Your task to perform on an android device: Open the calendar and show me this week's events? Image 0: 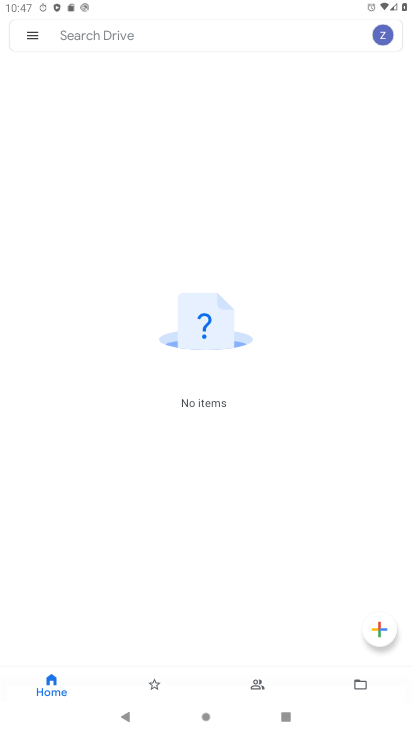
Step 0: press back button
Your task to perform on an android device: Open the calendar and show me this week's events? Image 1: 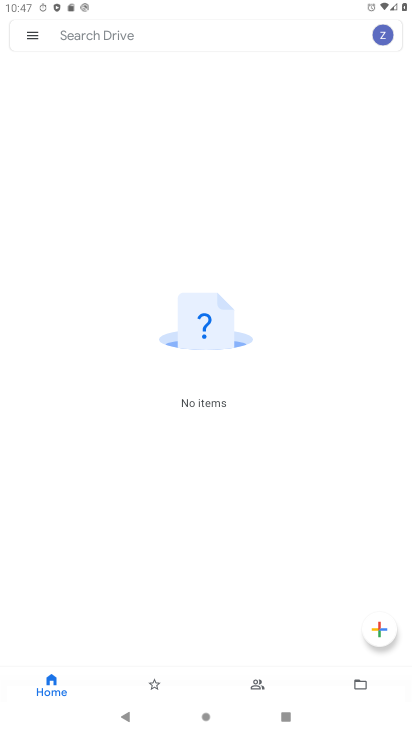
Step 1: press back button
Your task to perform on an android device: Open the calendar and show me this week's events? Image 2: 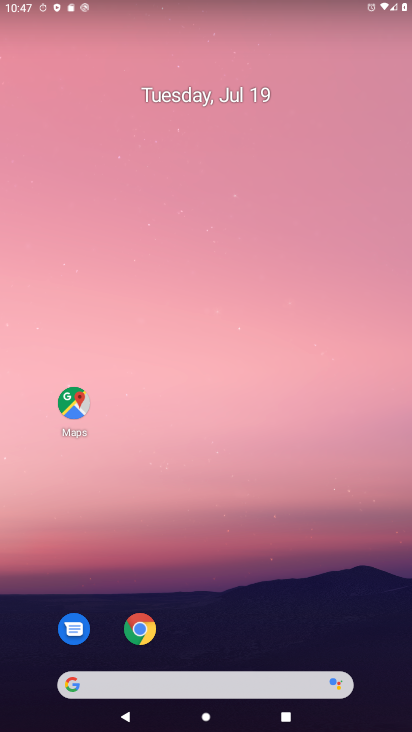
Step 2: drag from (270, 613) to (217, 101)
Your task to perform on an android device: Open the calendar and show me this week's events? Image 3: 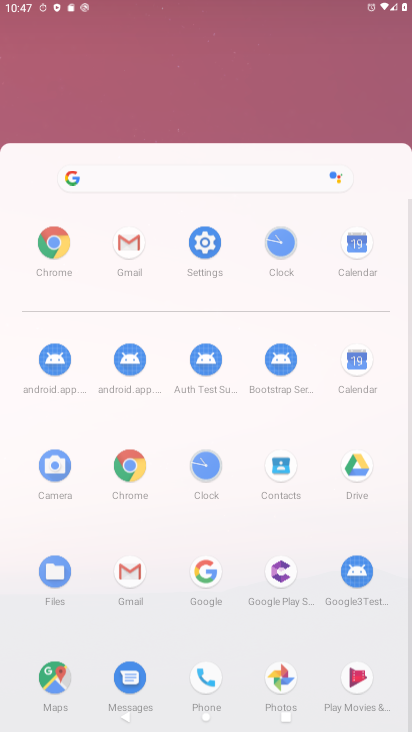
Step 3: drag from (260, 494) to (181, 59)
Your task to perform on an android device: Open the calendar and show me this week's events? Image 4: 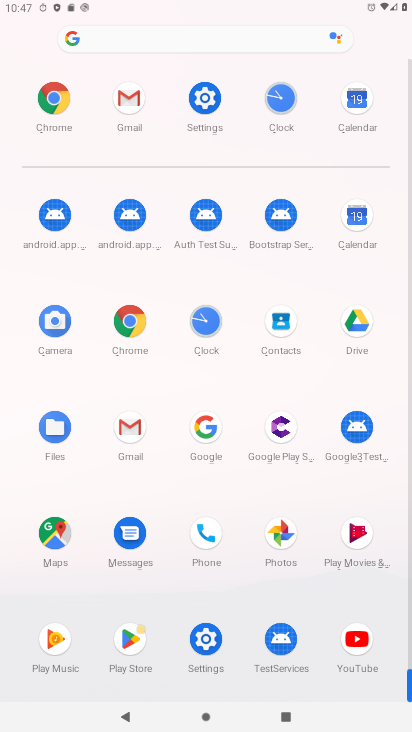
Step 4: click (356, 228)
Your task to perform on an android device: Open the calendar and show me this week's events? Image 5: 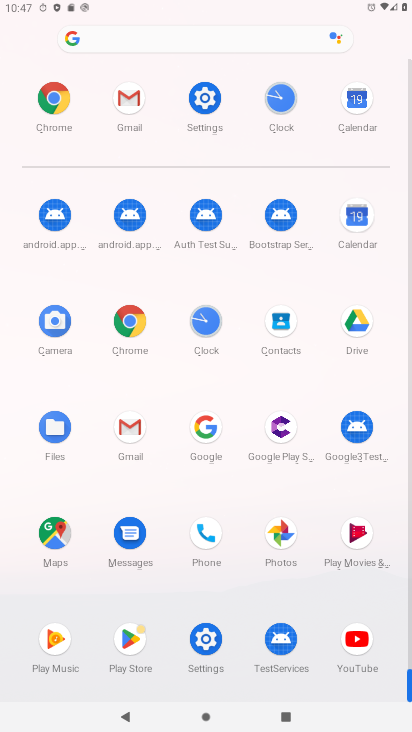
Step 5: click (356, 228)
Your task to perform on an android device: Open the calendar and show me this week's events? Image 6: 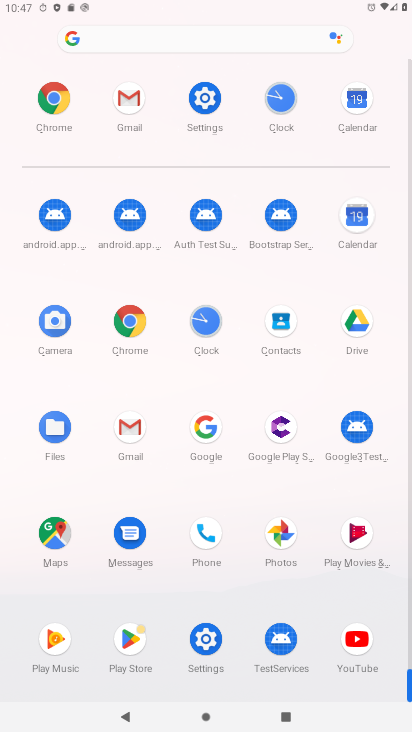
Step 6: click (356, 228)
Your task to perform on an android device: Open the calendar and show me this week's events? Image 7: 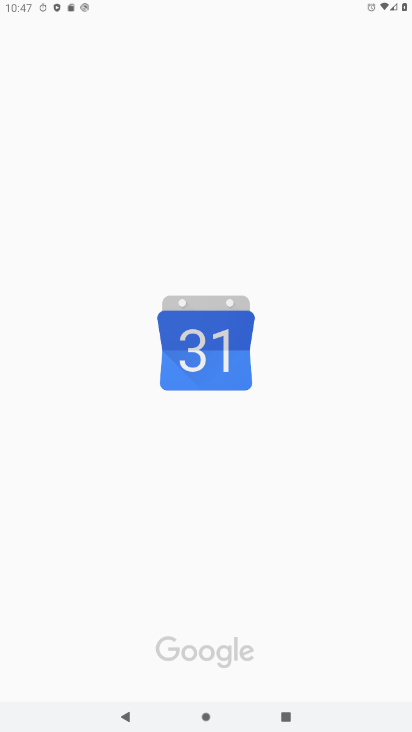
Step 7: click (357, 226)
Your task to perform on an android device: Open the calendar and show me this week's events? Image 8: 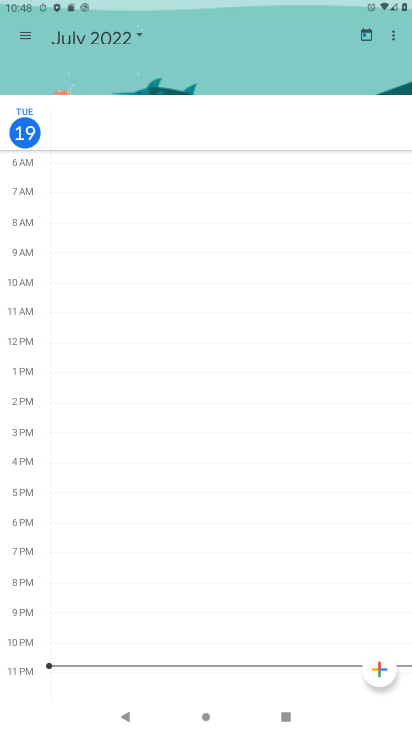
Step 8: click (141, 33)
Your task to perform on an android device: Open the calendar and show me this week's events? Image 9: 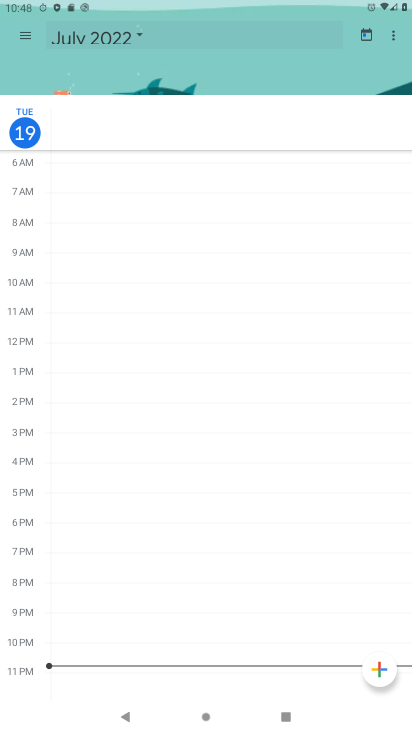
Step 9: click (141, 33)
Your task to perform on an android device: Open the calendar and show me this week's events? Image 10: 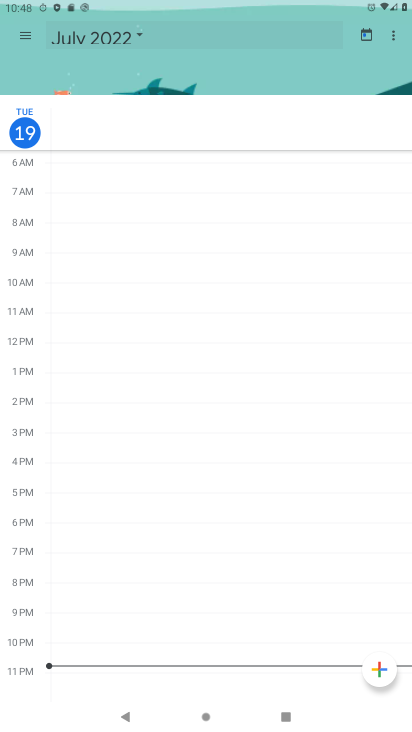
Step 10: click (141, 33)
Your task to perform on an android device: Open the calendar and show me this week's events? Image 11: 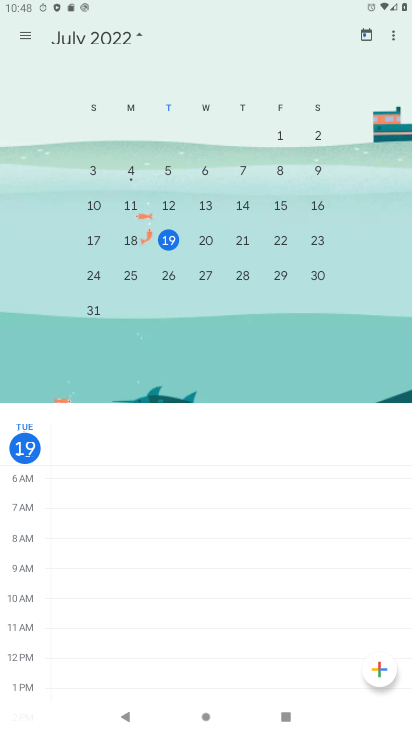
Step 11: click (276, 234)
Your task to perform on an android device: Open the calendar and show me this week's events? Image 12: 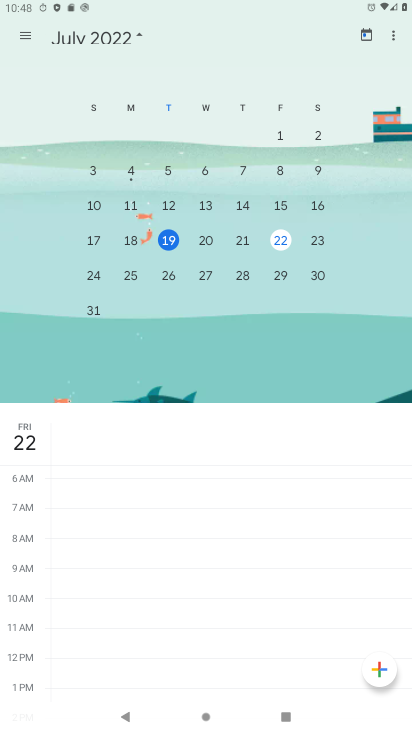
Step 12: click (280, 236)
Your task to perform on an android device: Open the calendar and show me this week's events? Image 13: 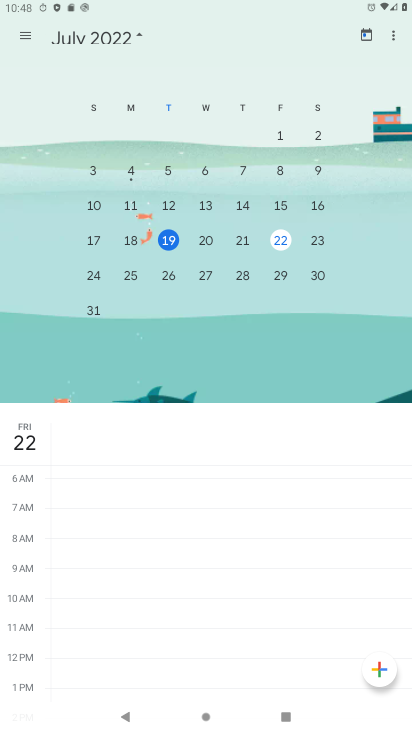
Step 13: click (282, 238)
Your task to perform on an android device: Open the calendar and show me this week's events? Image 14: 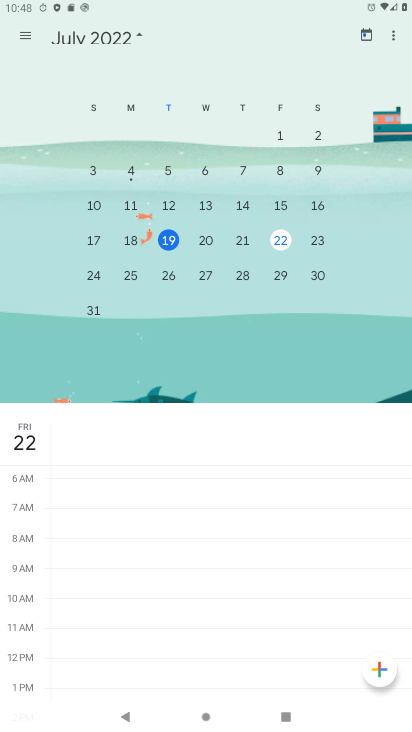
Step 14: task complete